Your task to perform on an android device: Go to ESPN.com Image 0: 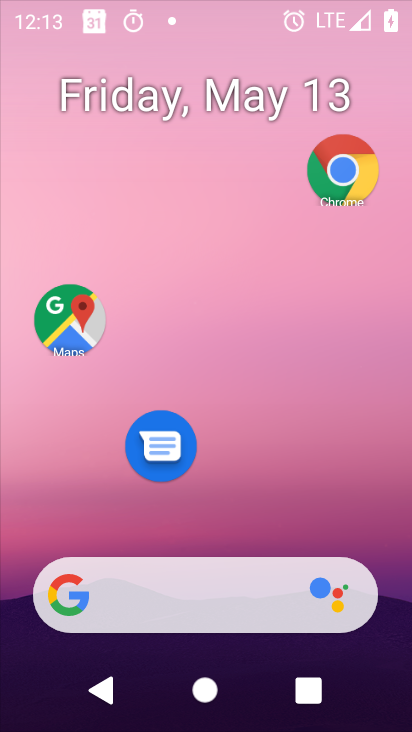
Step 0: drag from (288, 618) to (277, 62)
Your task to perform on an android device: Go to ESPN.com Image 1: 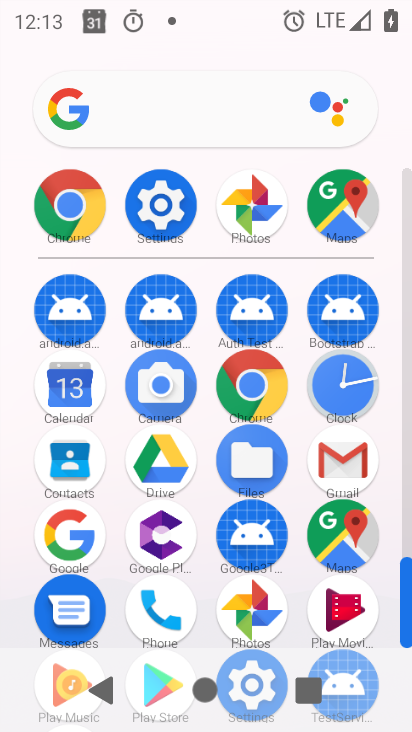
Step 1: click (356, 465)
Your task to perform on an android device: Go to ESPN.com Image 2: 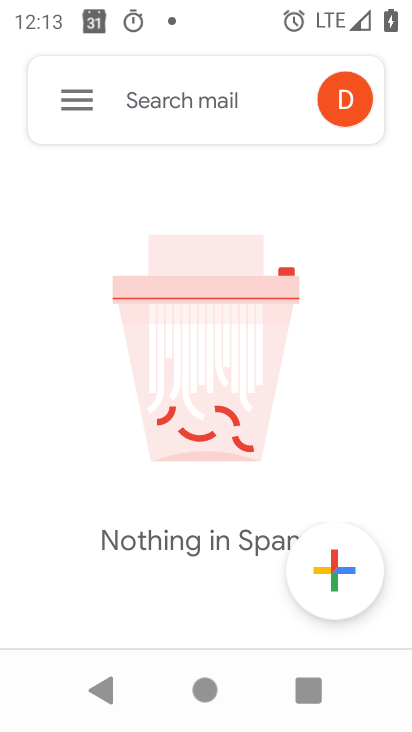
Step 2: press home button
Your task to perform on an android device: Go to ESPN.com Image 3: 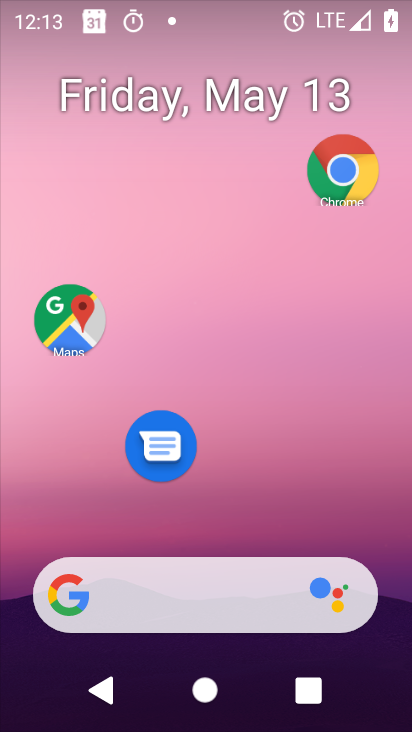
Step 3: drag from (265, 546) to (362, 0)
Your task to perform on an android device: Go to ESPN.com Image 4: 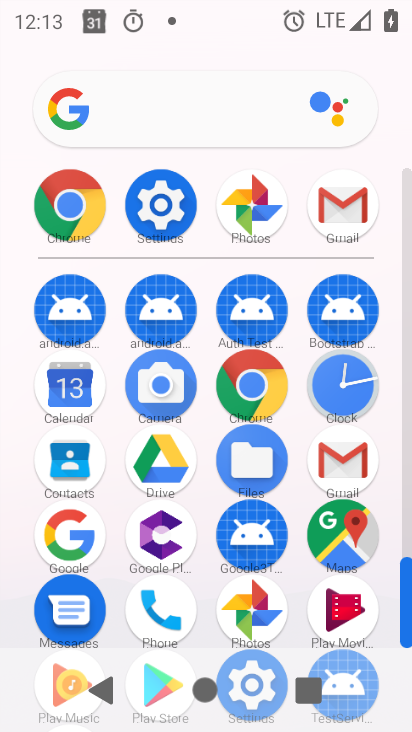
Step 4: click (241, 391)
Your task to perform on an android device: Go to ESPN.com Image 5: 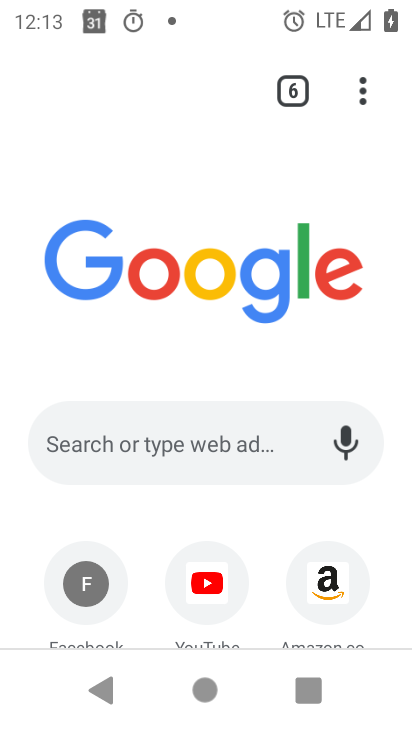
Step 5: click (261, 439)
Your task to perform on an android device: Go to ESPN.com Image 6: 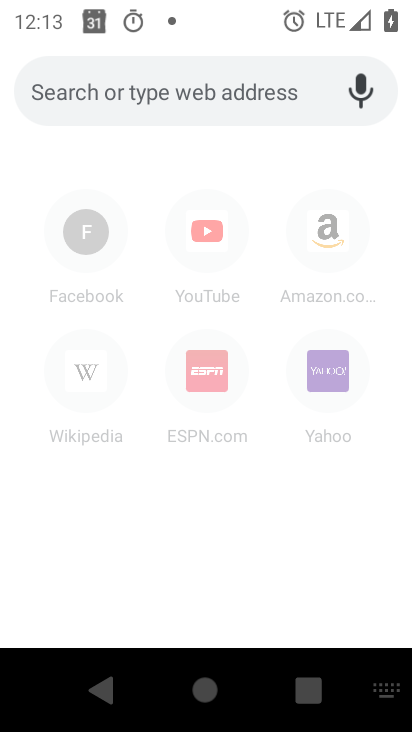
Step 6: press back button
Your task to perform on an android device: Go to ESPN.com Image 7: 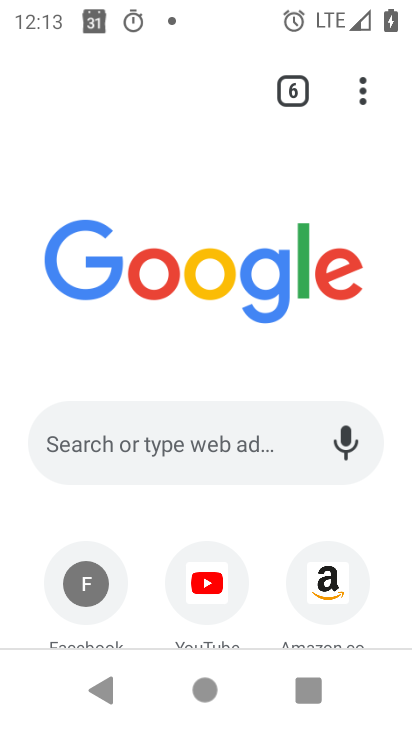
Step 7: drag from (264, 542) to (243, 141)
Your task to perform on an android device: Go to ESPN.com Image 8: 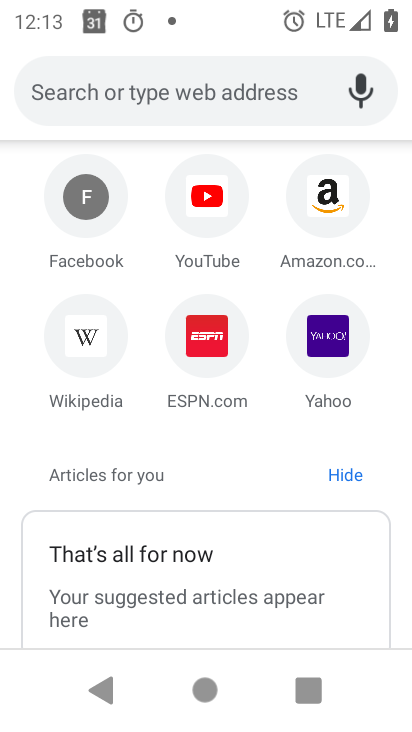
Step 8: click (227, 341)
Your task to perform on an android device: Go to ESPN.com Image 9: 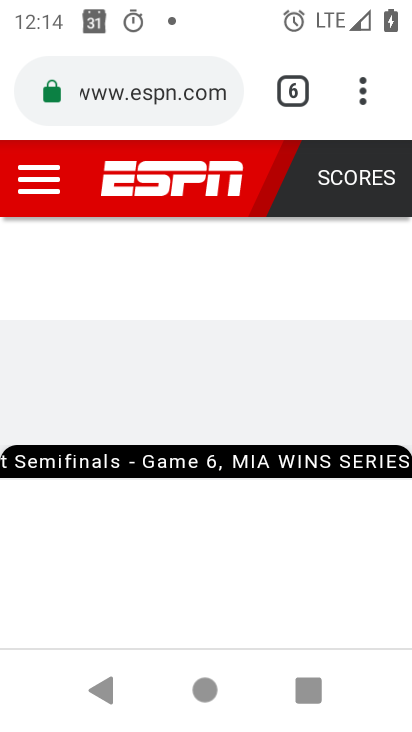
Step 9: task complete